Your task to perform on an android device: star an email in the gmail app Image 0: 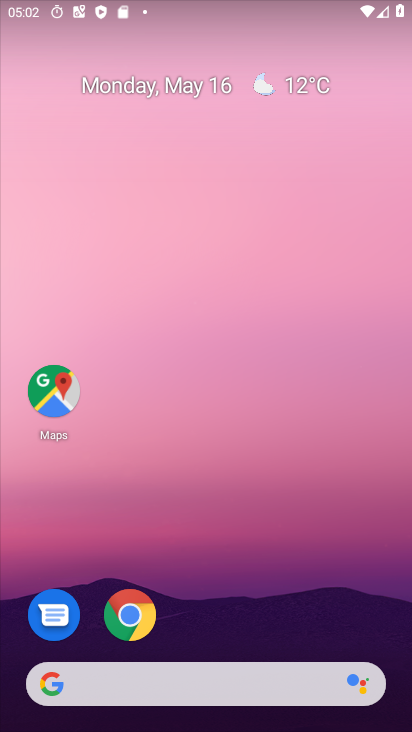
Step 0: drag from (274, 402) to (166, 31)
Your task to perform on an android device: star an email in the gmail app Image 1: 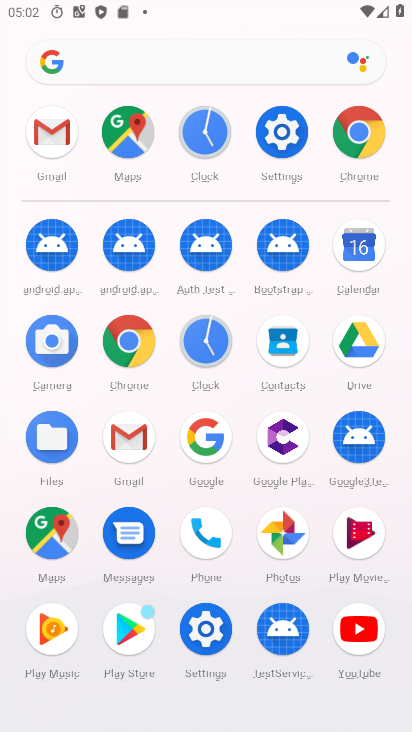
Step 1: click (119, 454)
Your task to perform on an android device: star an email in the gmail app Image 2: 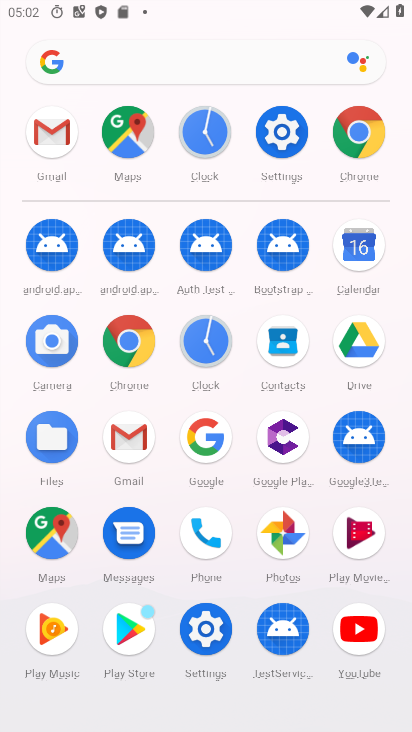
Step 2: click (128, 438)
Your task to perform on an android device: star an email in the gmail app Image 3: 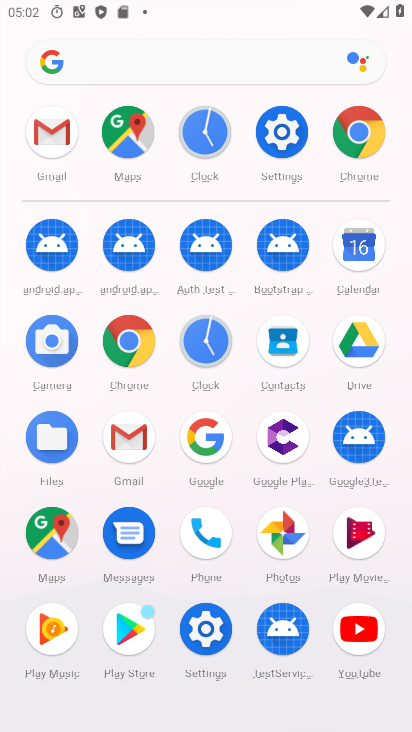
Step 3: click (128, 437)
Your task to perform on an android device: star an email in the gmail app Image 4: 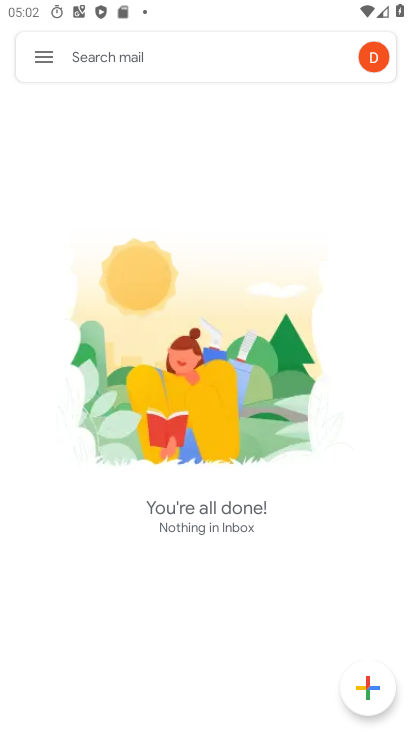
Step 4: drag from (205, 413) to (159, 13)
Your task to perform on an android device: star an email in the gmail app Image 5: 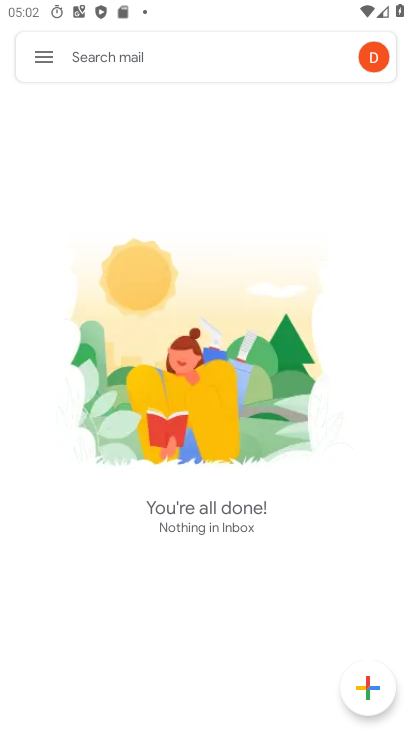
Step 5: click (36, 56)
Your task to perform on an android device: star an email in the gmail app Image 6: 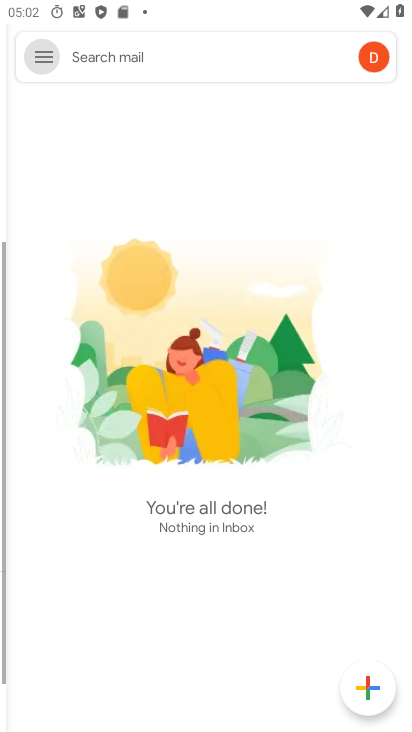
Step 6: click (36, 56)
Your task to perform on an android device: star an email in the gmail app Image 7: 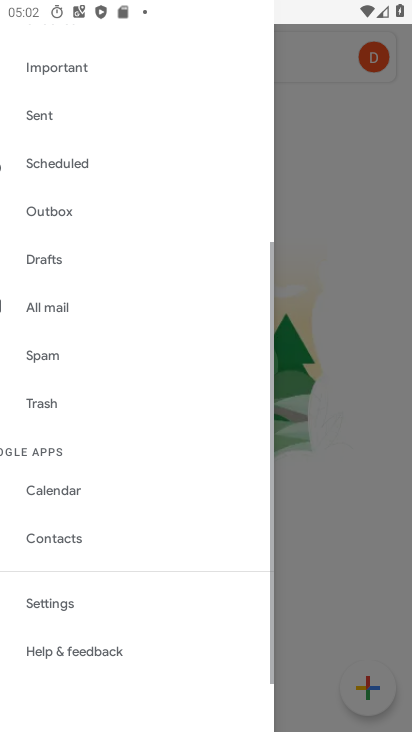
Step 7: click (36, 56)
Your task to perform on an android device: star an email in the gmail app Image 8: 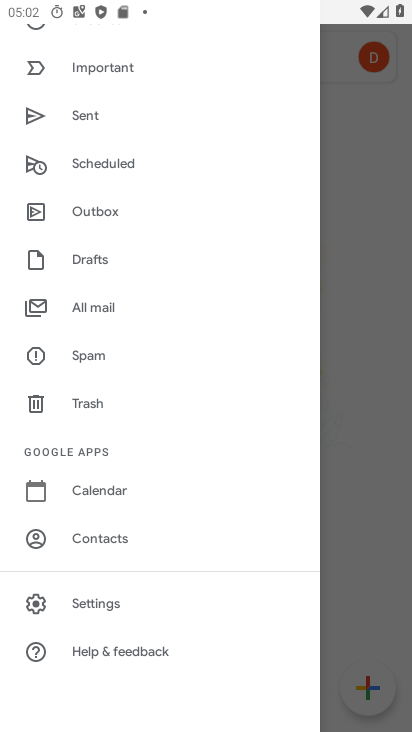
Step 8: click (91, 601)
Your task to perform on an android device: star an email in the gmail app Image 9: 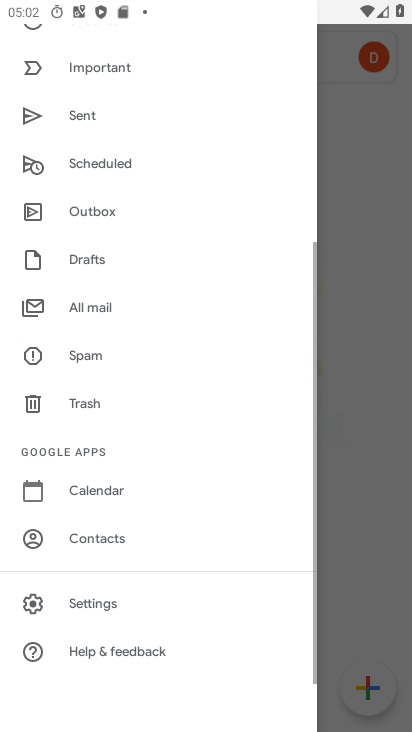
Step 9: click (85, 595)
Your task to perform on an android device: star an email in the gmail app Image 10: 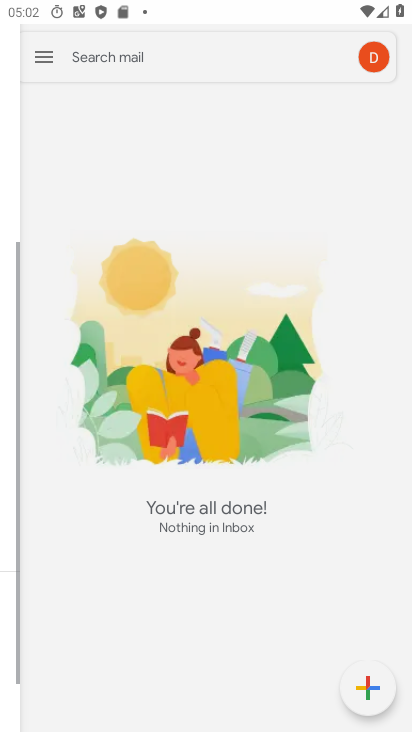
Step 10: click (85, 595)
Your task to perform on an android device: star an email in the gmail app Image 11: 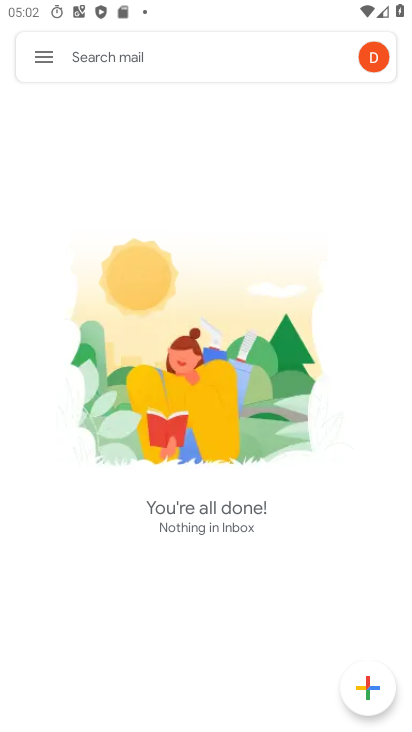
Step 11: click (85, 595)
Your task to perform on an android device: star an email in the gmail app Image 12: 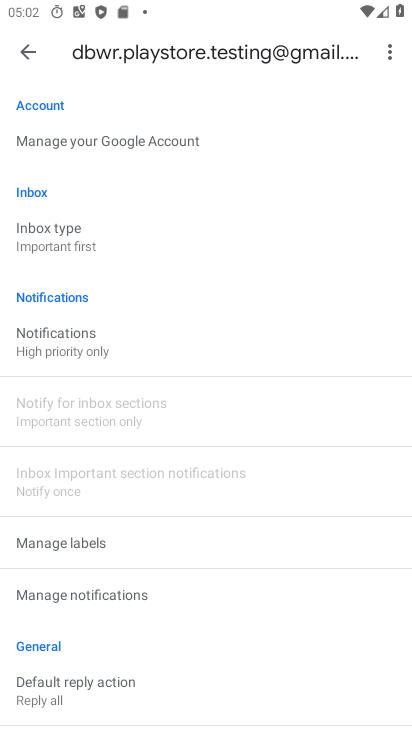
Step 12: click (29, 47)
Your task to perform on an android device: star an email in the gmail app Image 13: 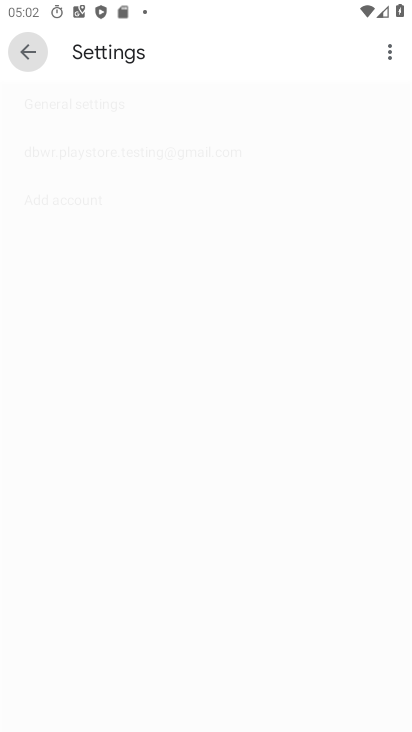
Step 13: click (29, 47)
Your task to perform on an android device: star an email in the gmail app Image 14: 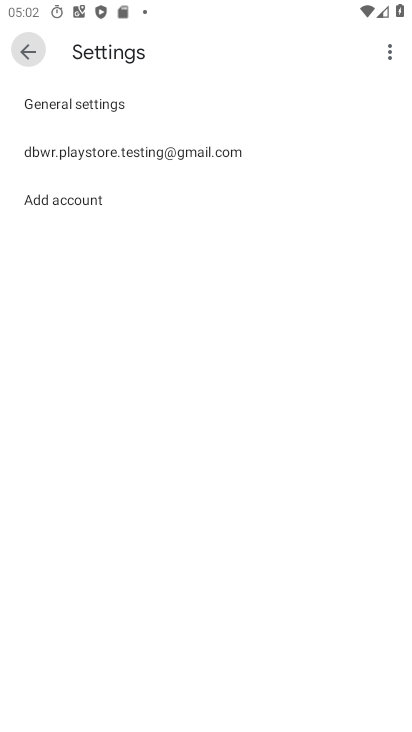
Step 14: click (28, 46)
Your task to perform on an android device: star an email in the gmail app Image 15: 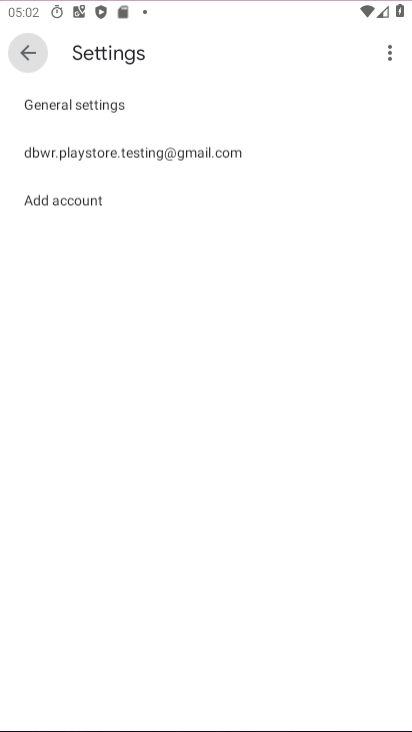
Step 15: click (28, 46)
Your task to perform on an android device: star an email in the gmail app Image 16: 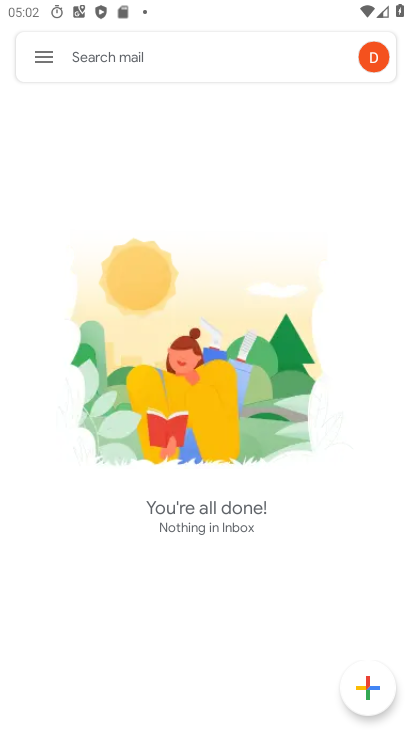
Step 16: click (37, 58)
Your task to perform on an android device: star an email in the gmail app Image 17: 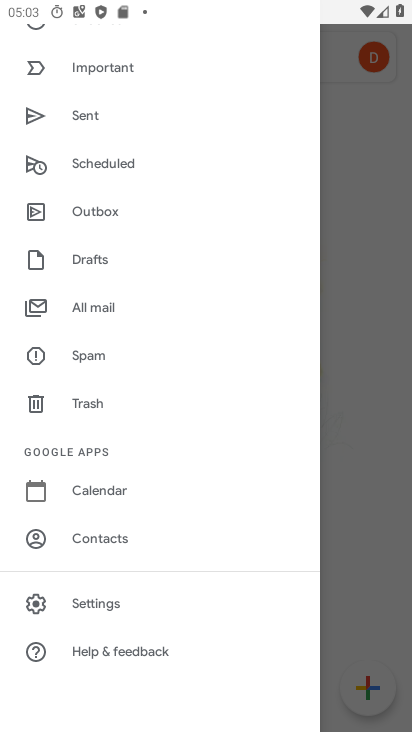
Step 17: click (99, 314)
Your task to perform on an android device: star an email in the gmail app Image 18: 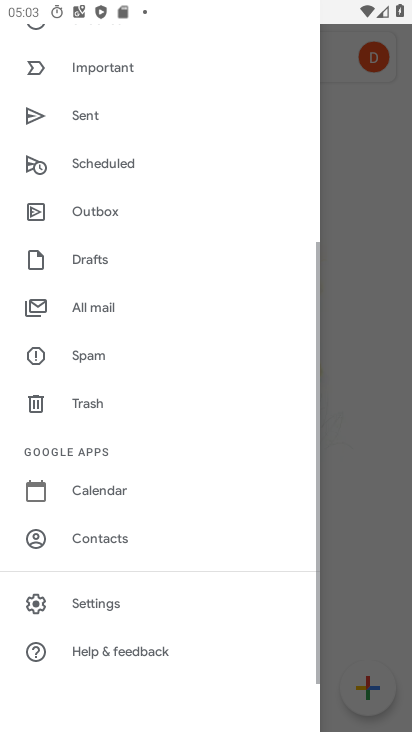
Step 18: click (99, 304)
Your task to perform on an android device: star an email in the gmail app Image 19: 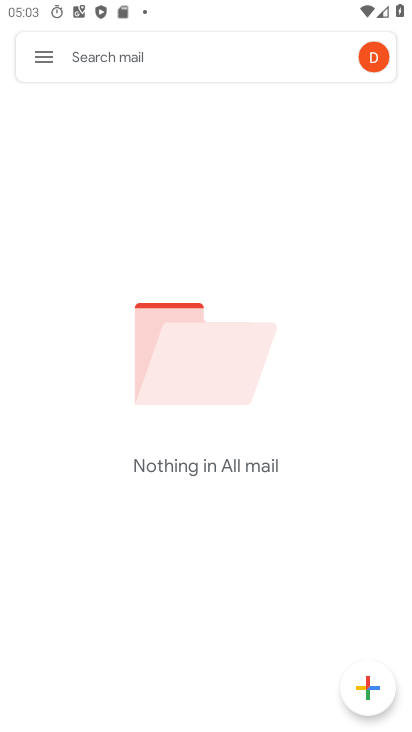
Step 19: task complete